Your task to perform on an android device: turn on improve location accuracy Image 0: 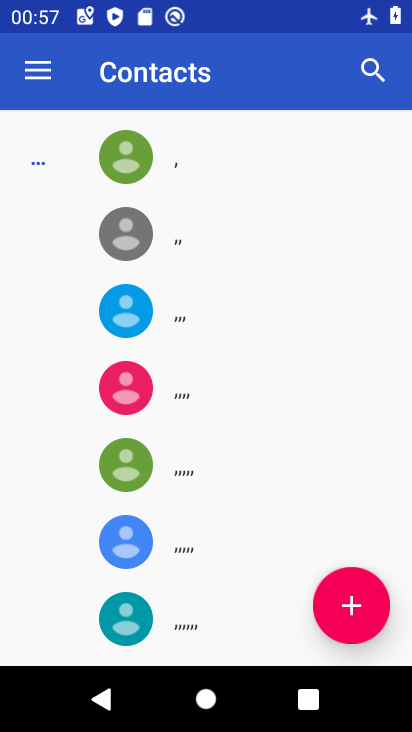
Step 0: press home button
Your task to perform on an android device: turn on improve location accuracy Image 1: 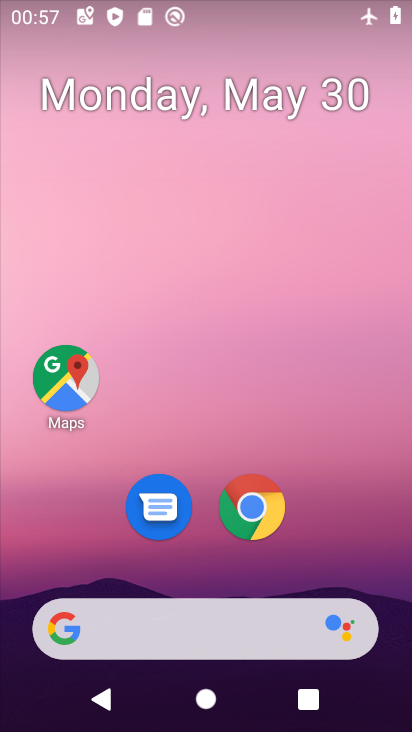
Step 1: drag from (308, 567) to (300, 216)
Your task to perform on an android device: turn on improve location accuracy Image 2: 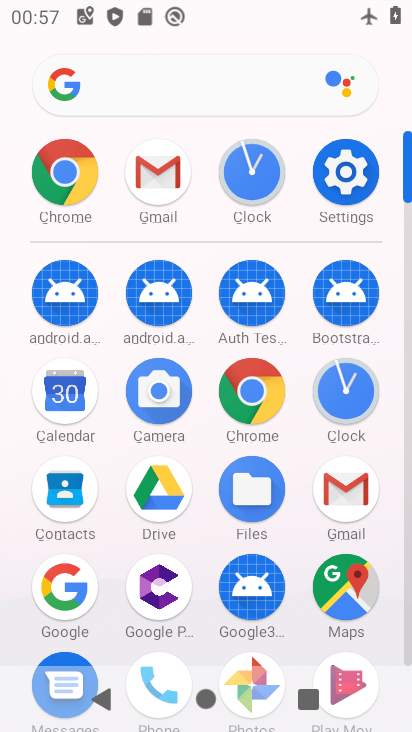
Step 2: click (349, 157)
Your task to perform on an android device: turn on improve location accuracy Image 3: 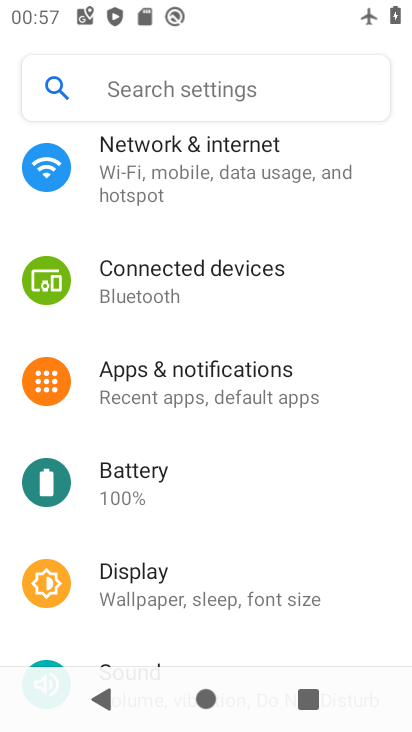
Step 3: drag from (217, 519) to (233, 366)
Your task to perform on an android device: turn on improve location accuracy Image 4: 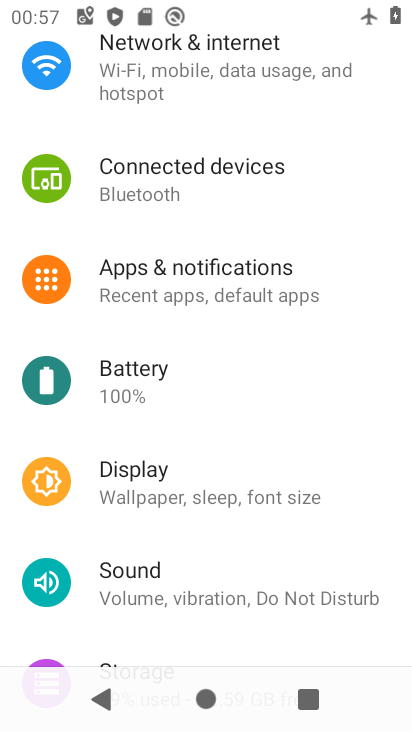
Step 4: drag from (188, 459) to (233, 263)
Your task to perform on an android device: turn on improve location accuracy Image 5: 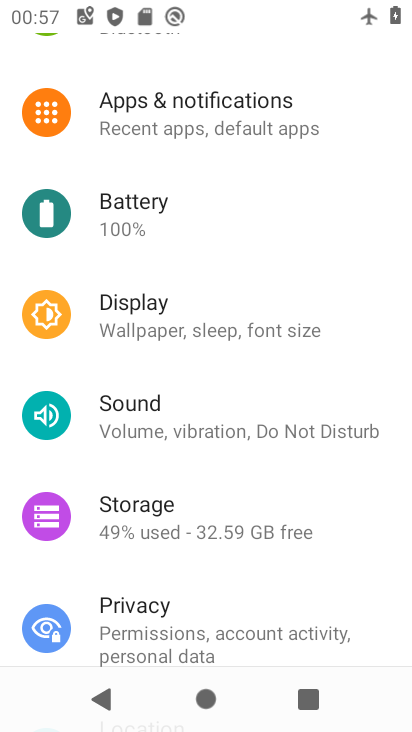
Step 5: drag from (187, 546) to (232, 208)
Your task to perform on an android device: turn on improve location accuracy Image 6: 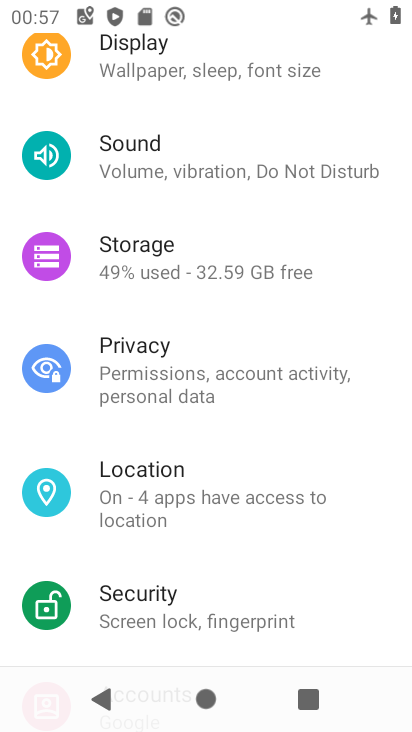
Step 6: click (145, 478)
Your task to perform on an android device: turn on improve location accuracy Image 7: 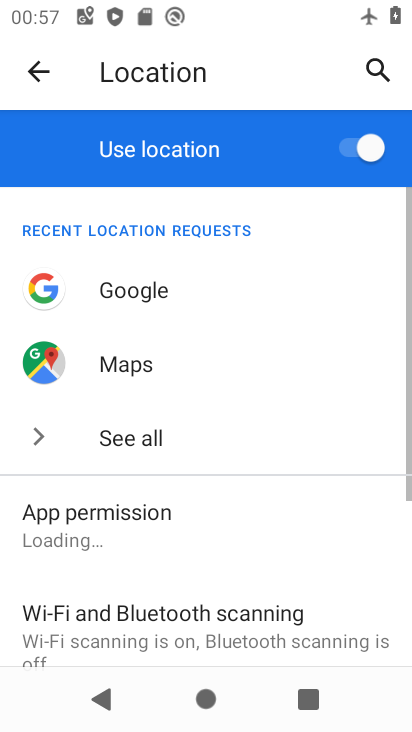
Step 7: drag from (228, 571) to (283, 238)
Your task to perform on an android device: turn on improve location accuracy Image 8: 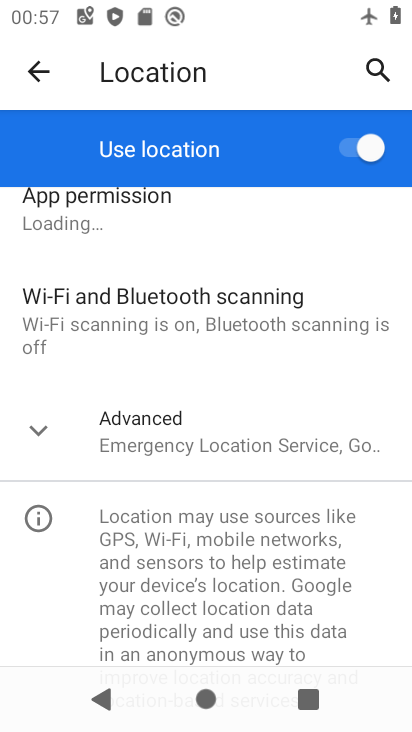
Step 8: click (159, 454)
Your task to perform on an android device: turn on improve location accuracy Image 9: 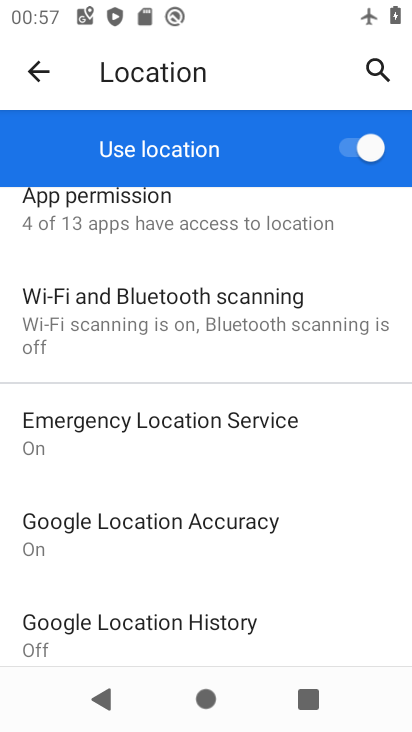
Step 9: drag from (179, 583) to (233, 407)
Your task to perform on an android device: turn on improve location accuracy Image 10: 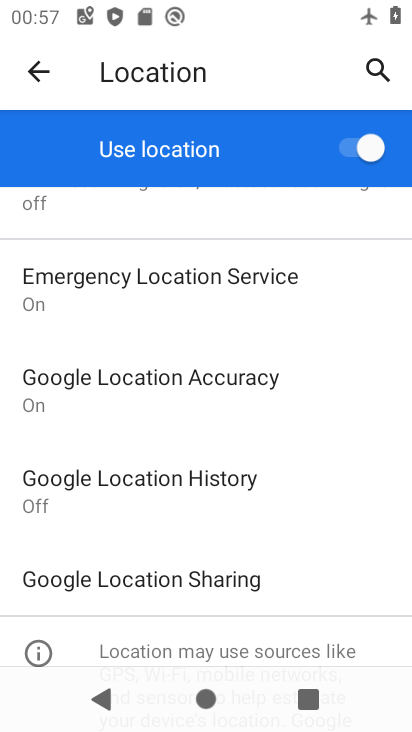
Step 10: click (154, 412)
Your task to perform on an android device: turn on improve location accuracy Image 11: 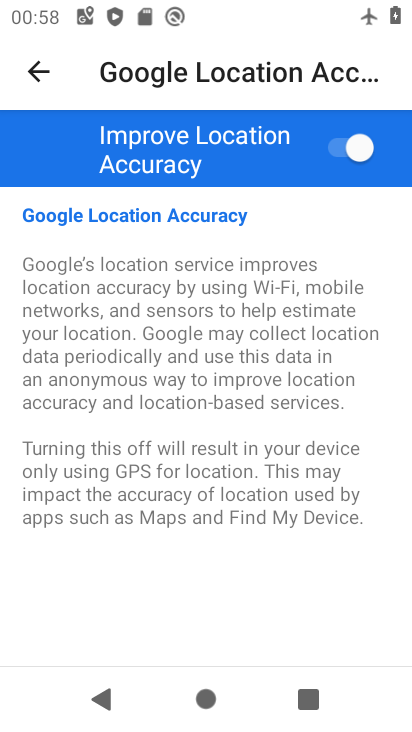
Step 11: task complete